Your task to perform on an android device: turn on bluetooth scan Image 0: 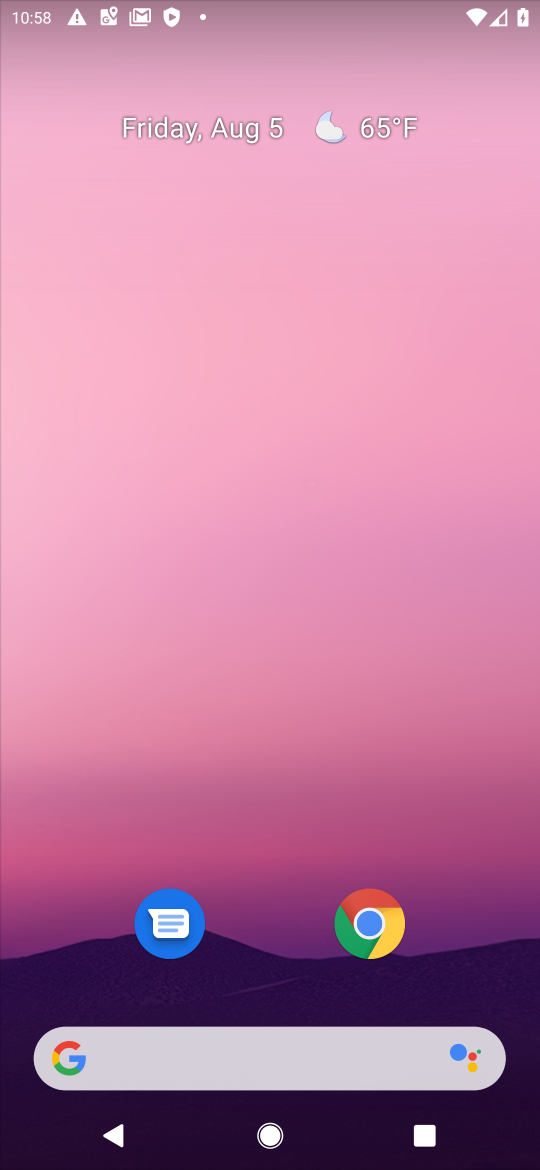
Step 0: drag from (171, 1025) to (312, 10)
Your task to perform on an android device: turn on bluetooth scan Image 1: 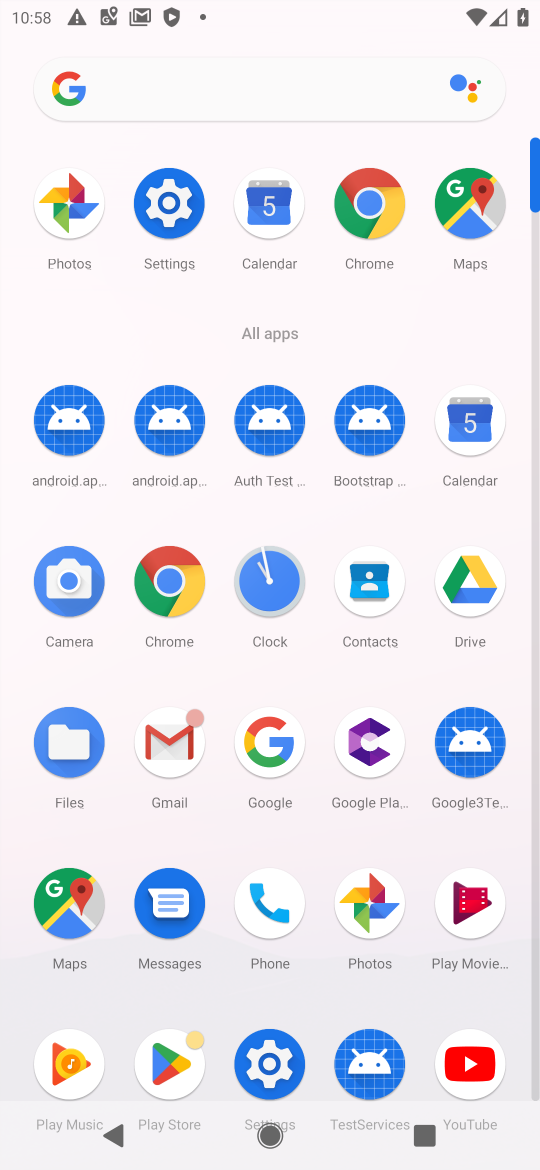
Step 1: click (179, 207)
Your task to perform on an android device: turn on bluetooth scan Image 2: 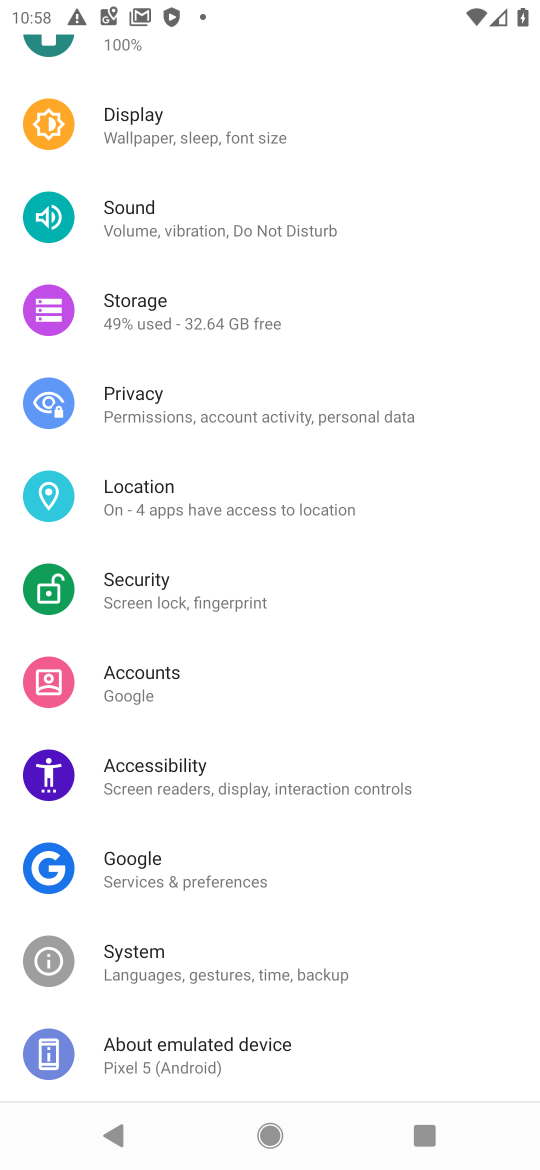
Step 2: click (190, 207)
Your task to perform on an android device: turn on bluetooth scan Image 3: 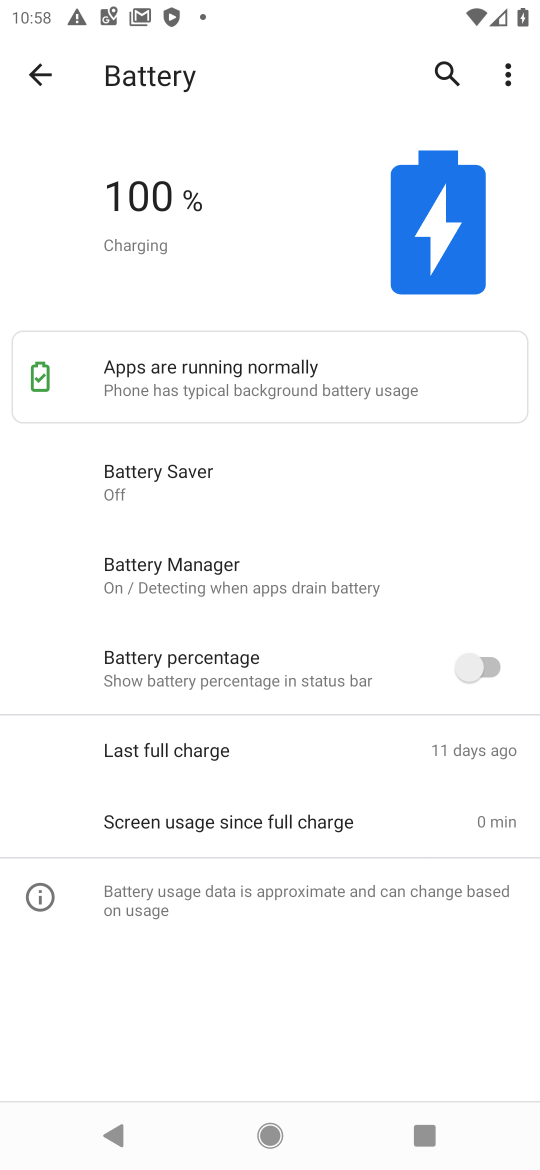
Step 3: press back button
Your task to perform on an android device: turn on bluetooth scan Image 4: 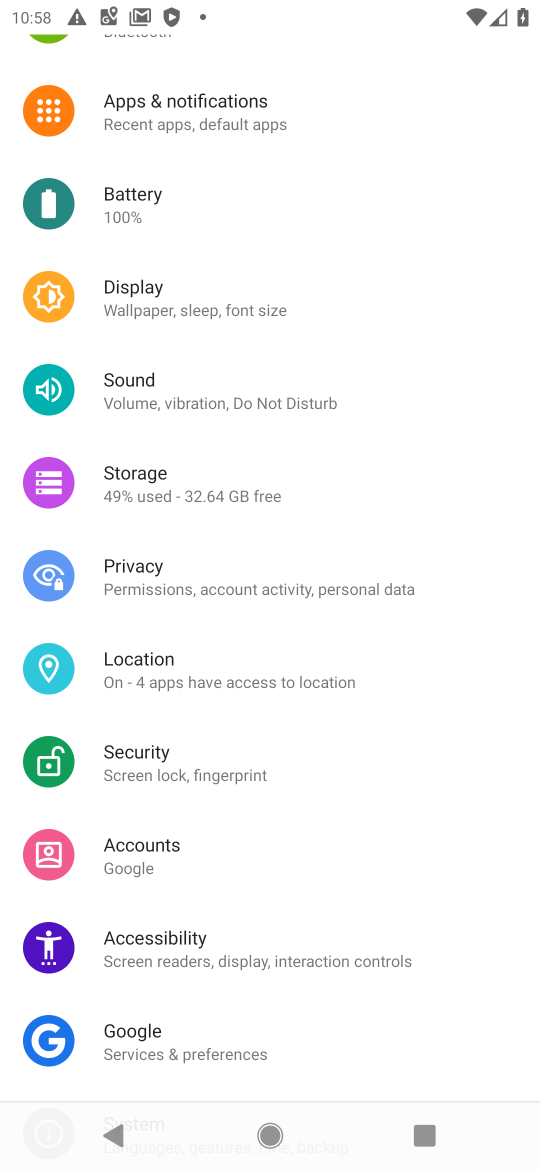
Step 4: click (185, 667)
Your task to perform on an android device: turn on bluetooth scan Image 5: 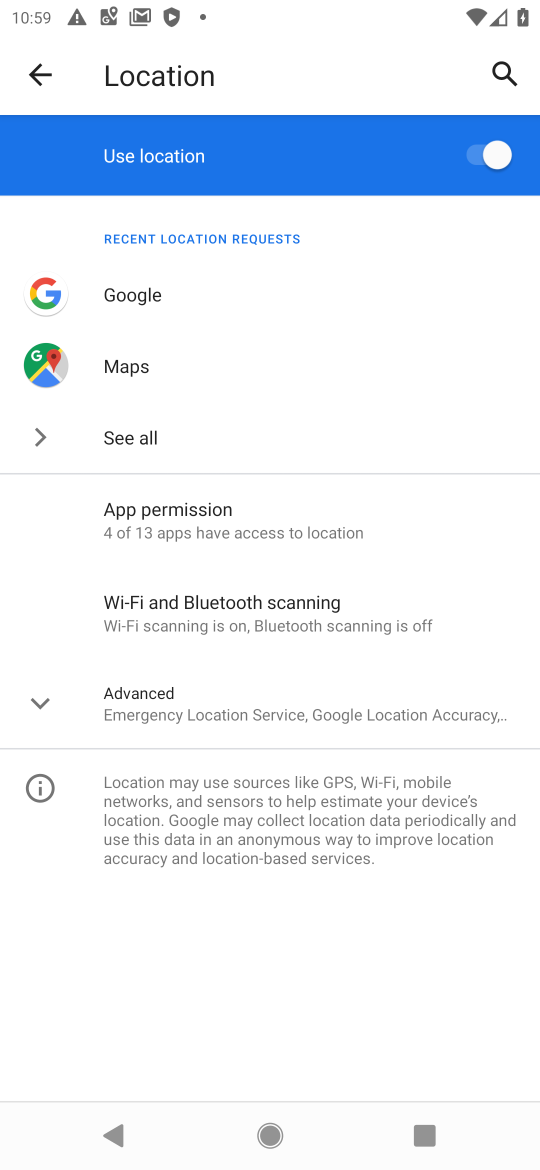
Step 5: click (378, 627)
Your task to perform on an android device: turn on bluetooth scan Image 6: 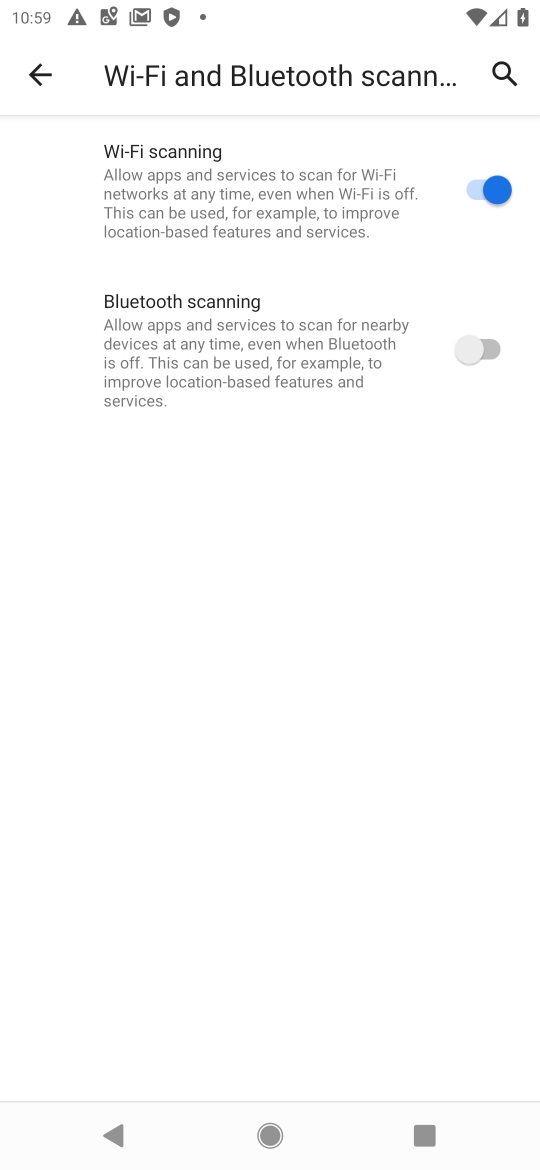
Step 6: click (465, 427)
Your task to perform on an android device: turn on bluetooth scan Image 7: 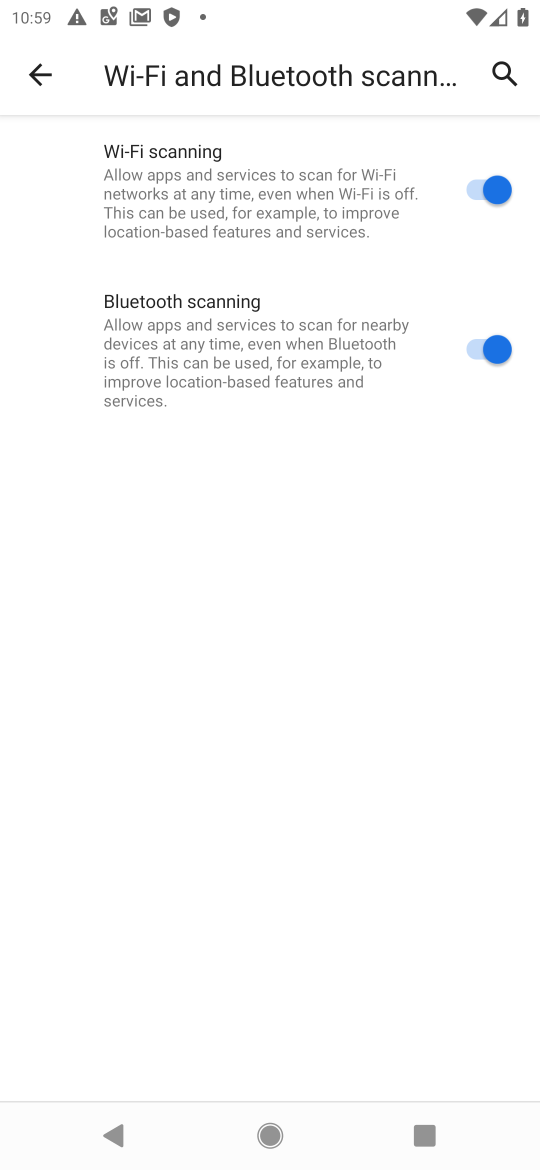
Step 7: task complete